Your task to perform on an android device: open app "ZOOM Cloud Meetings" (install if not already installed) Image 0: 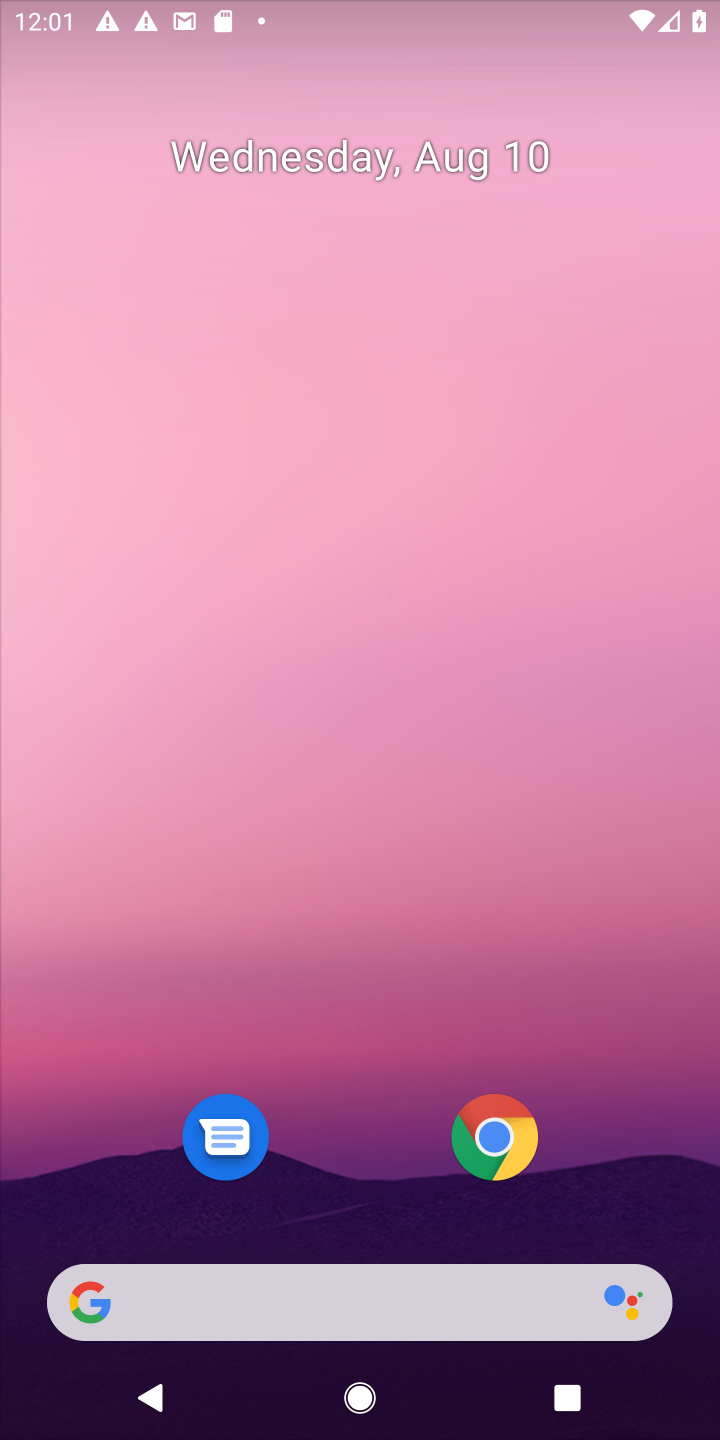
Step 0: press home button
Your task to perform on an android device: open app "ZOOM Cloud Meetings" (install if not already installed) Image 1: 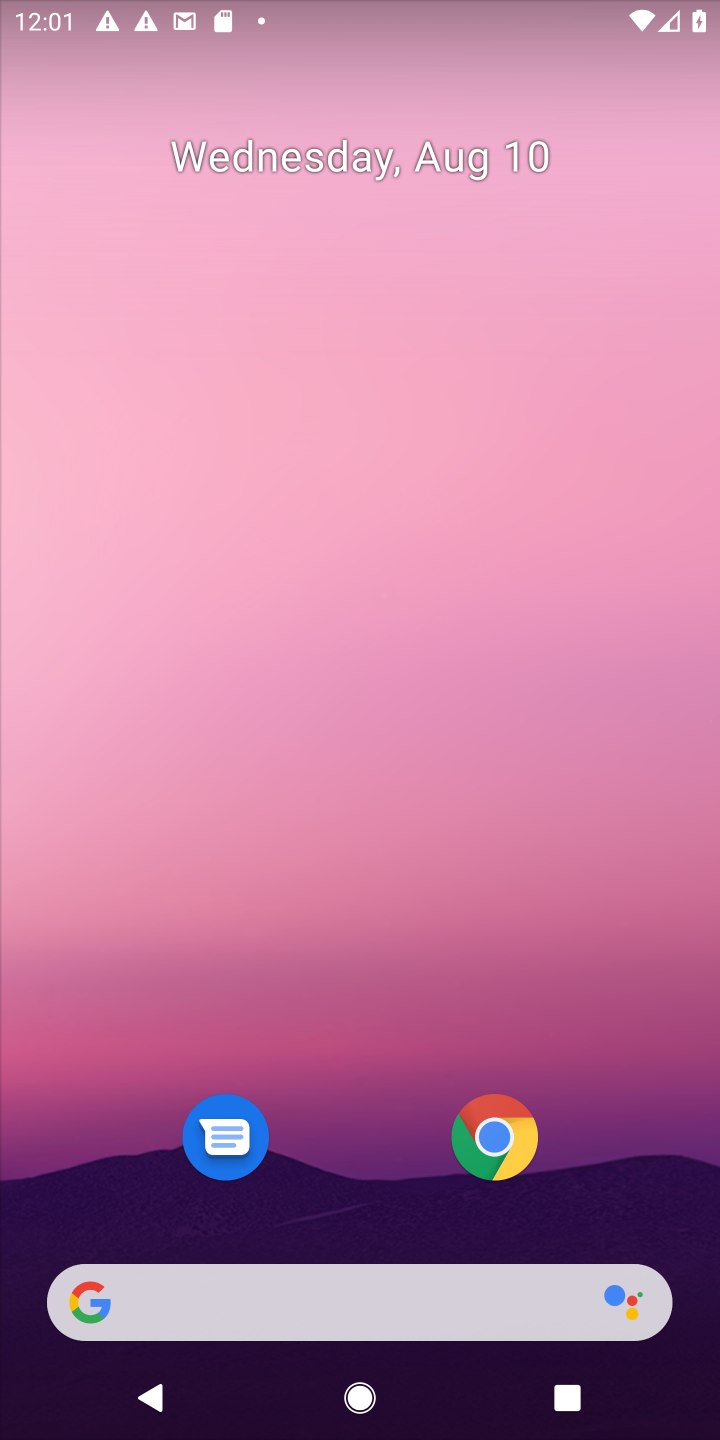
Step 1: press home button
Your task to perform on an android device: open app "ZOOM Cloud Meetings" (install if not already installed) Image 2: 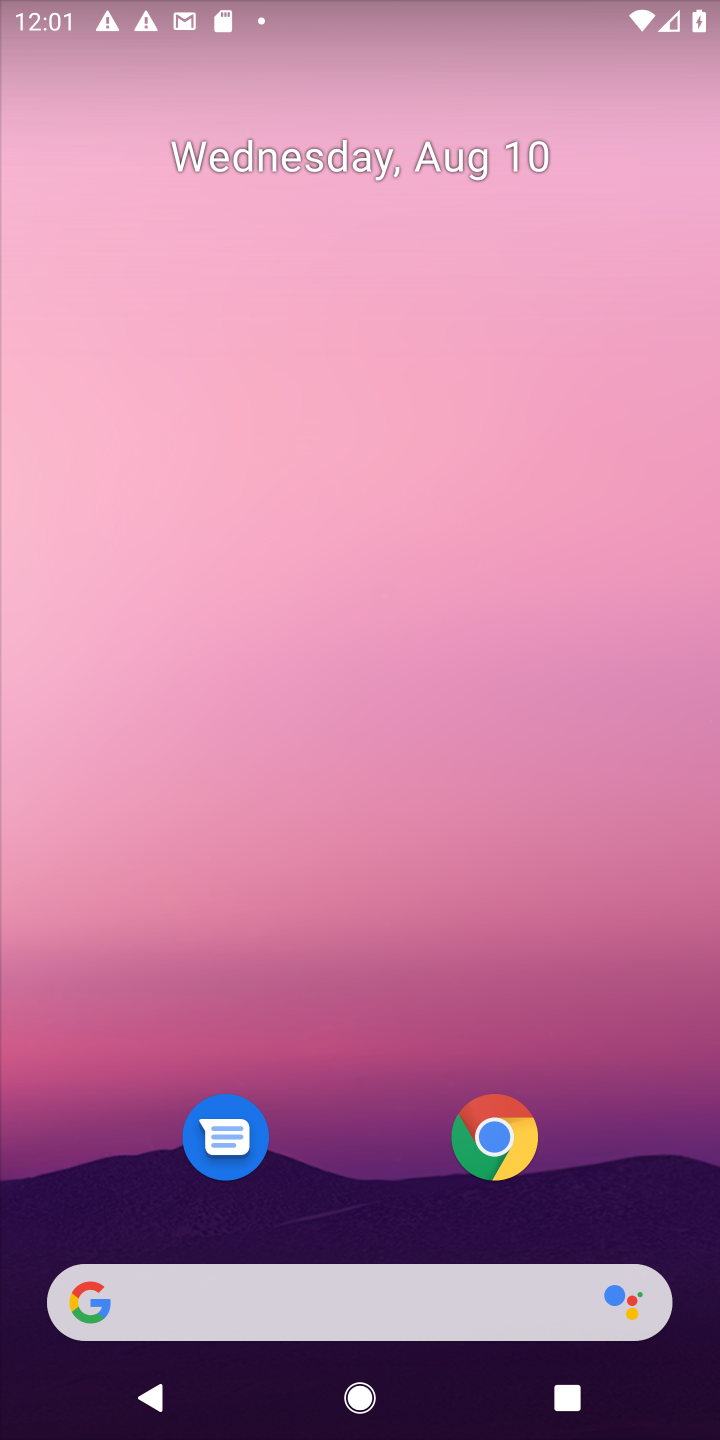
Step 2: drag from (362, 1193) to (409, 46)
Your task to perform on an android device: open app "ZOOM Cloud Meetings" (install if not already installed) Image 3: 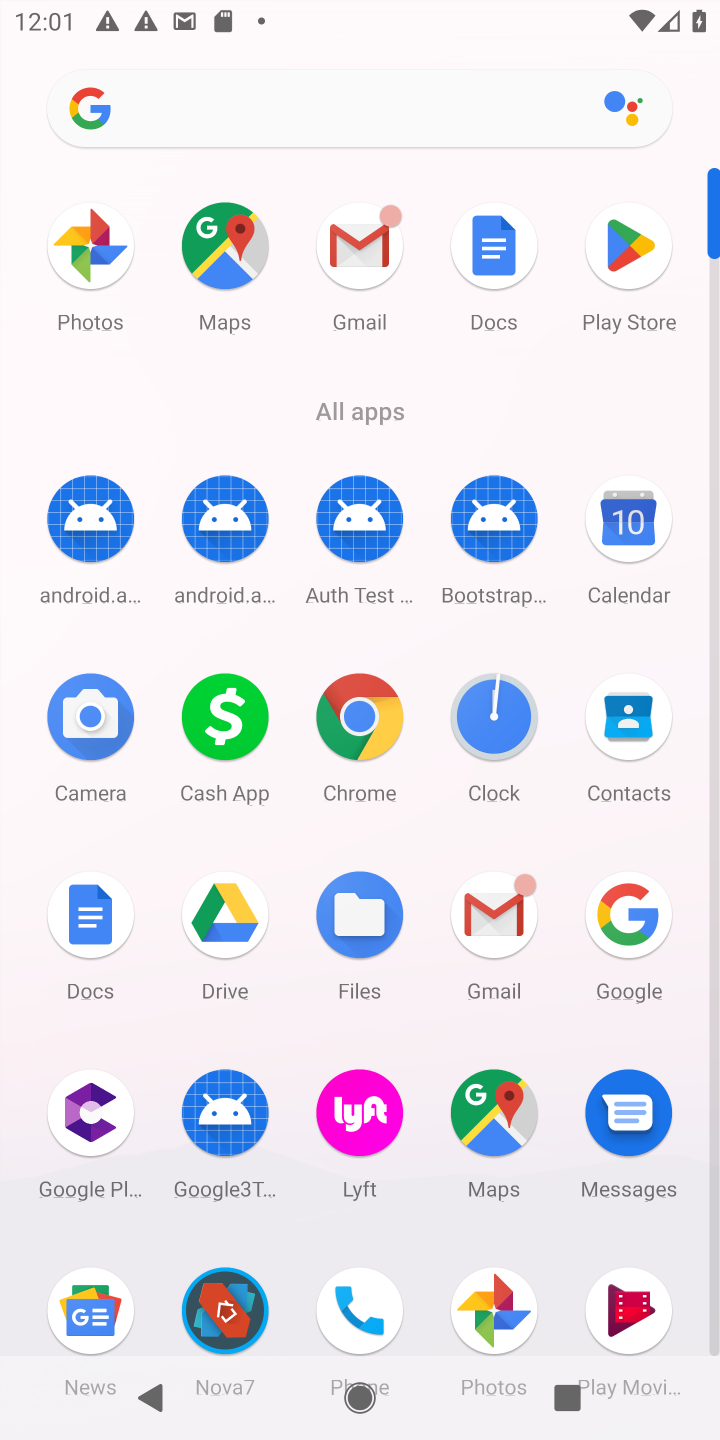
Step 3: click (624, 291)
Your task to perform on an android device: open app "ZOOM Cloud Meetings" (install if not already installed) Image 4: 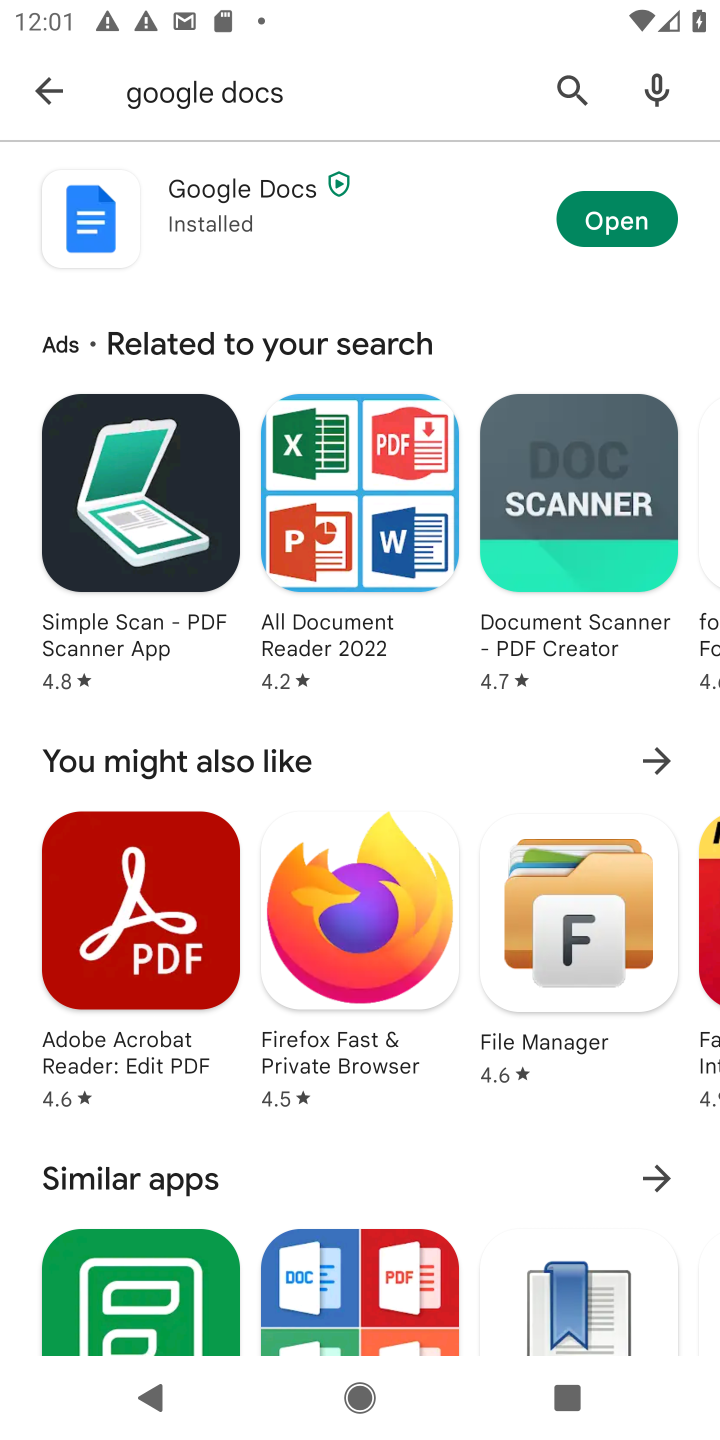
Step 4: click (562, 86)
Your task to perform on an android device: open app "ZOOM Cloud Meetings" (install if not already installed) Image 5: 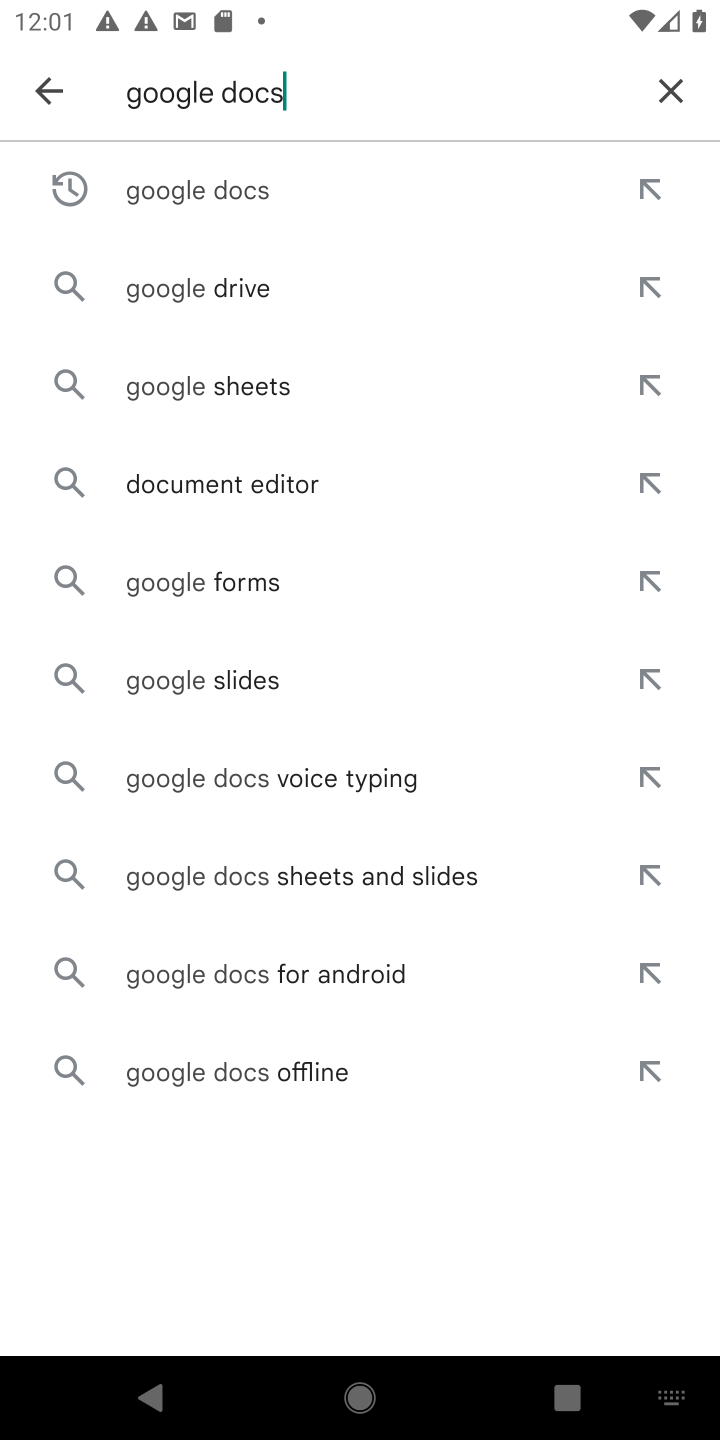
Step 5: click (668, 94)
Your task to perform on an android device: open app "ZOOM Cloud Meetings" (install if not already installed) Image 6: 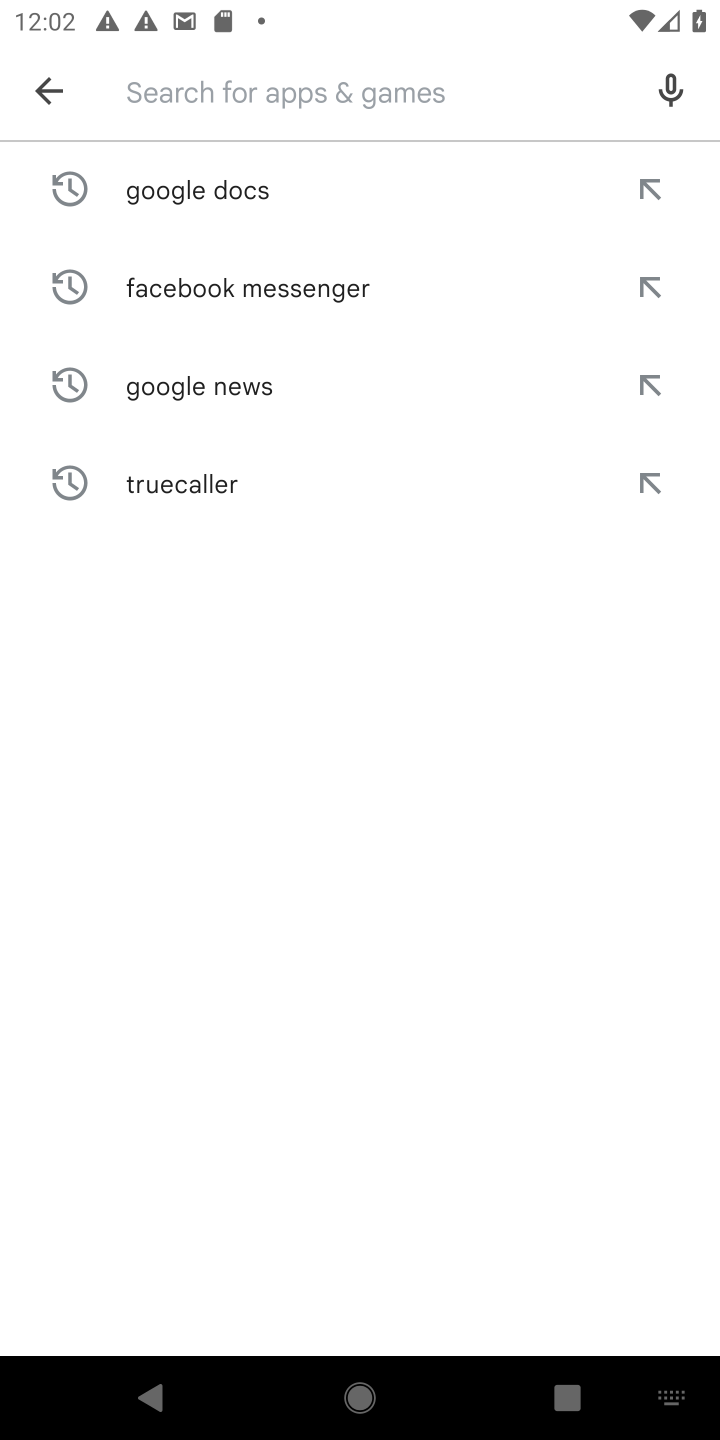
Step 6: type "ZOOM Cloud Meetings"
Your task to perform on an android device: open app "ZOOM Cloud Meetings" (install if not already installed) Image 7: 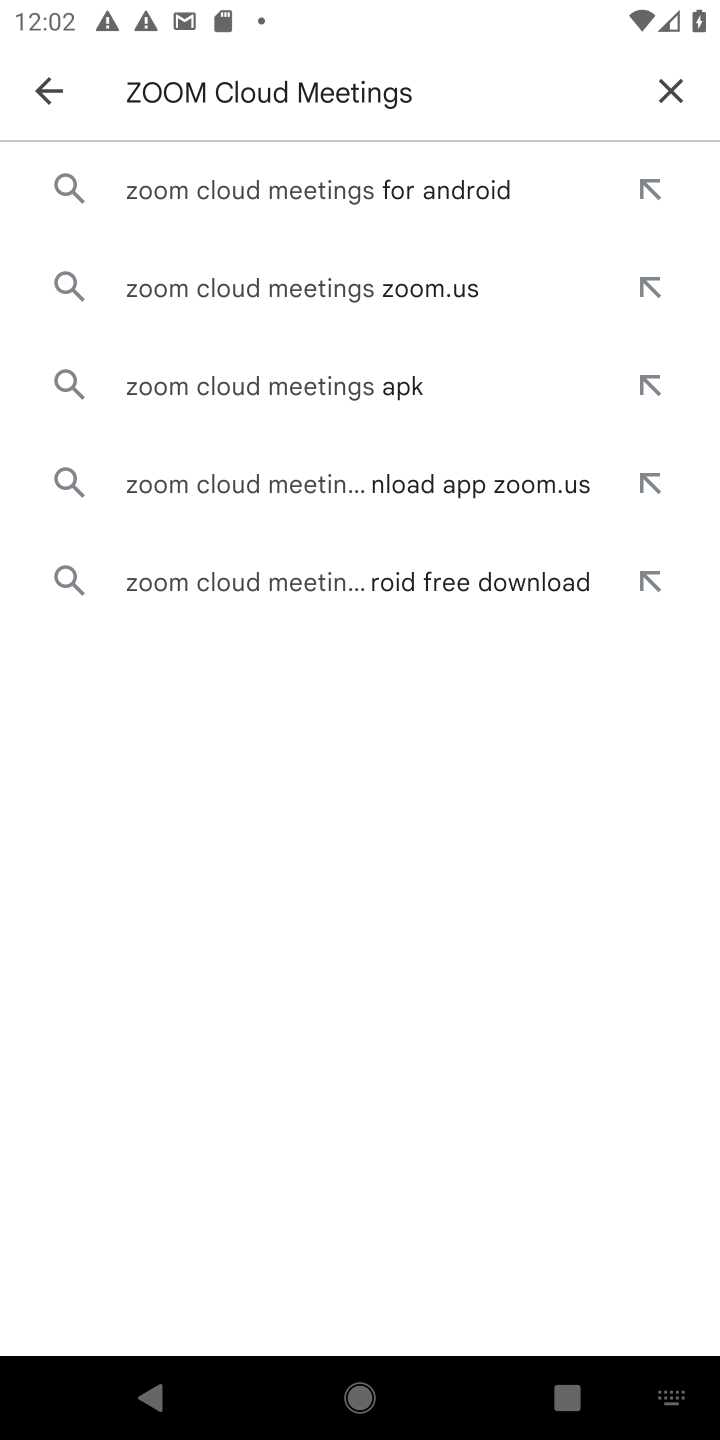
Step 7: click (341, 191)
Your task to perform on an android device: open app "ZOOM Cloud Meetings" (install if not already installed) Image 8: 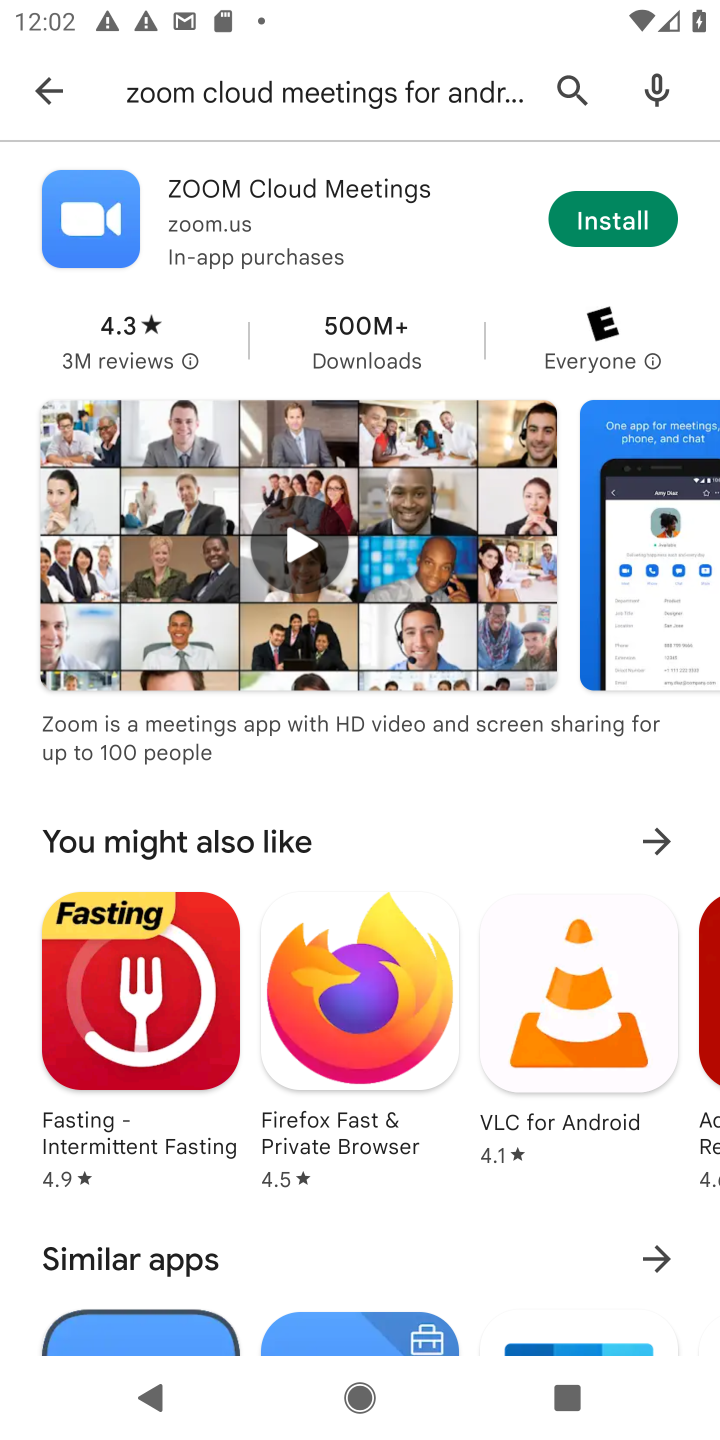
Step 8: click (608, 207)
Your task to perform on an android device: open app "ZOOM Cloud Meetings" (install if not already installed) Image 9: 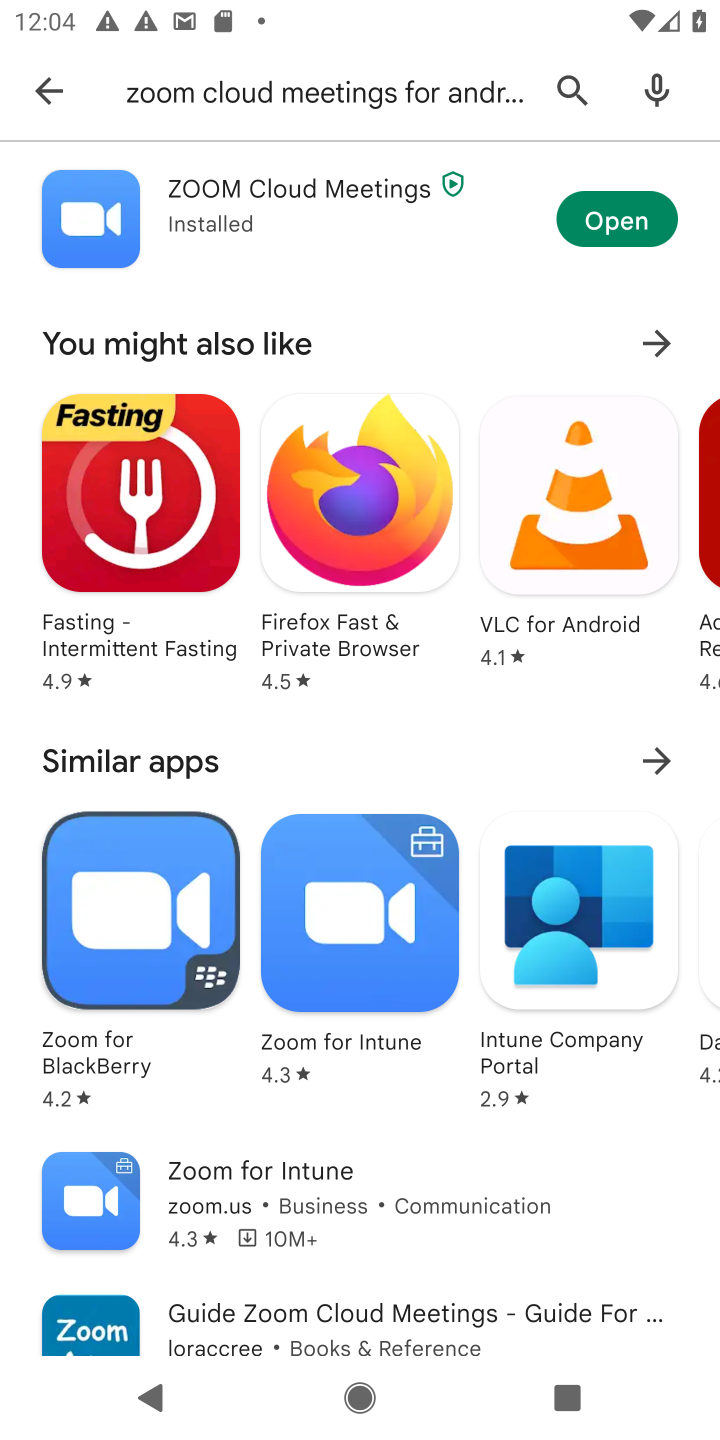
Step 9: click (608, 213)
Your task to perform on an android device: open app "ZOOM Cloud Meetings" (install if not already installed) Image 10: 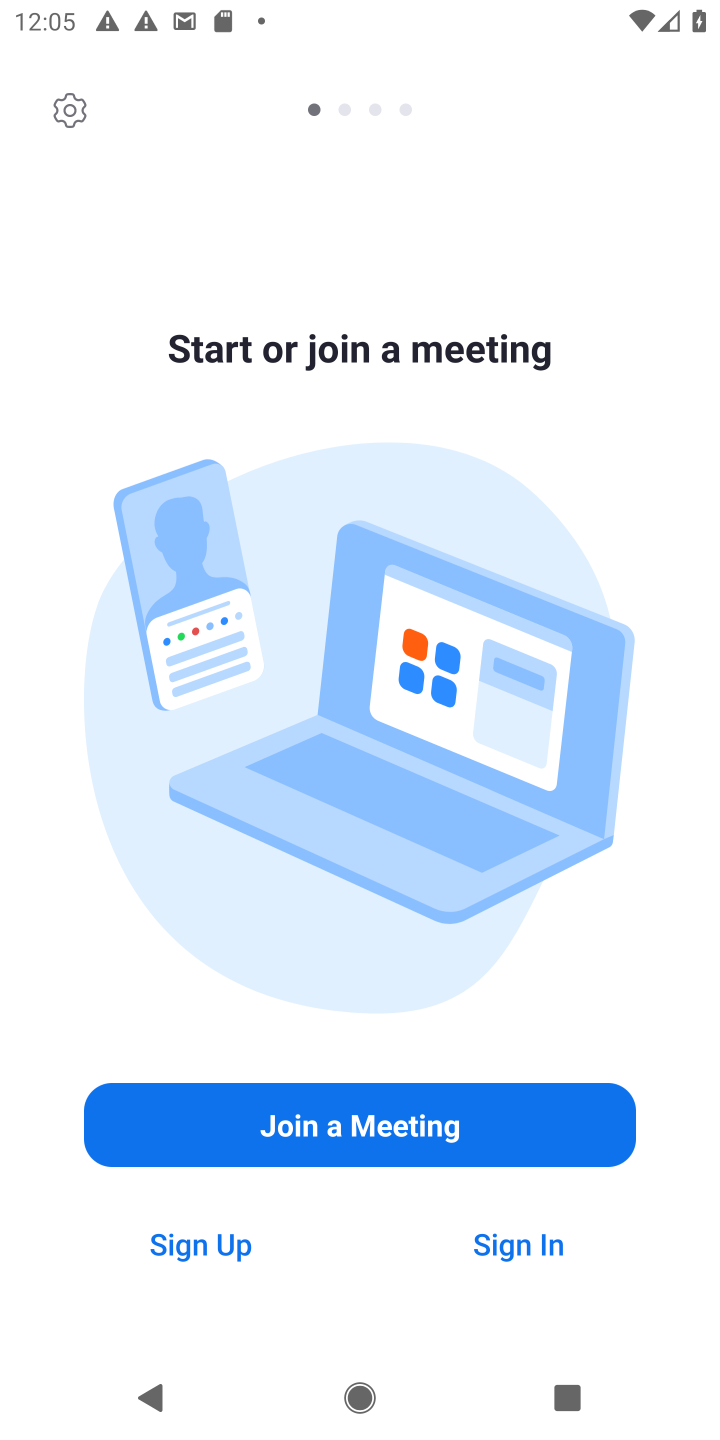
Step 10: click (349, 1131)
Your task to perform on an android device: open app "ZOOM Cloud Meetings" (install if not already installed) Image 11: 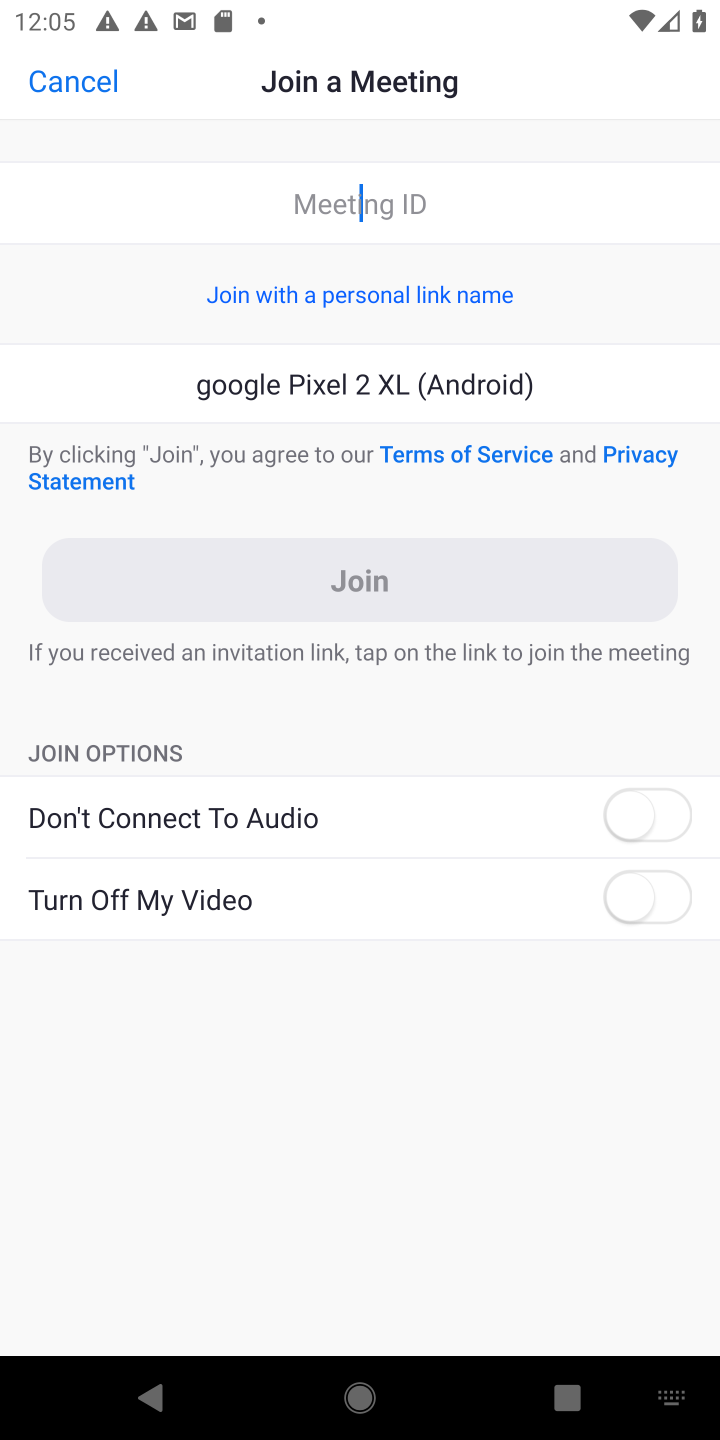
Step 11: task complete